Your task to perform on an android device: stop showing notifications on the lock screen Image 0: 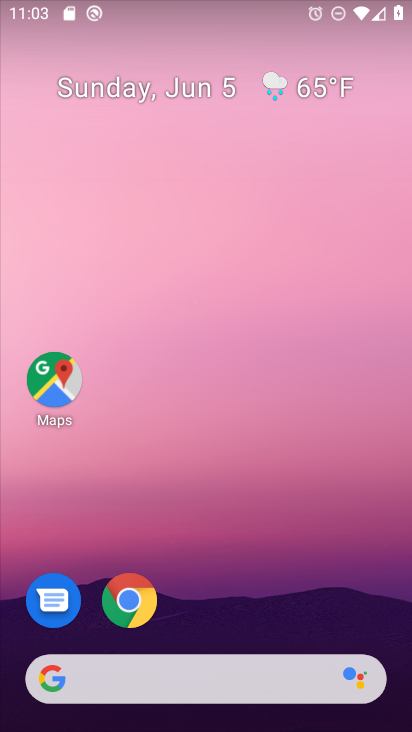
Step 0: drag from (360, 614) to (289, 115)
Your task to perform on an android device: stop showing notifications on the lock screen Image 1: 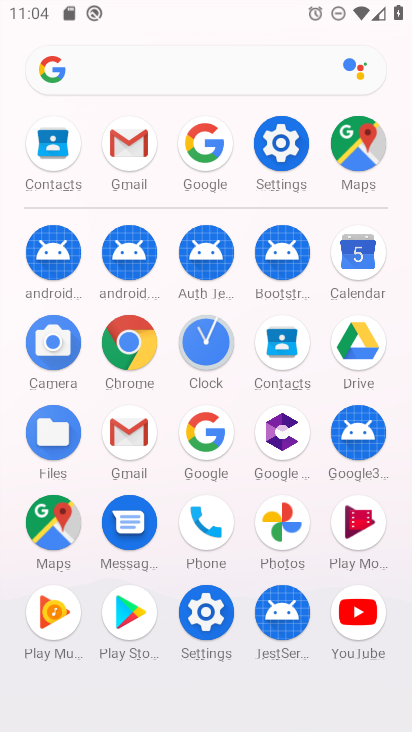
Step 1: click (213, 618)
Your task to perform on an android device: stop showing notifications on the lock screen Image 2: 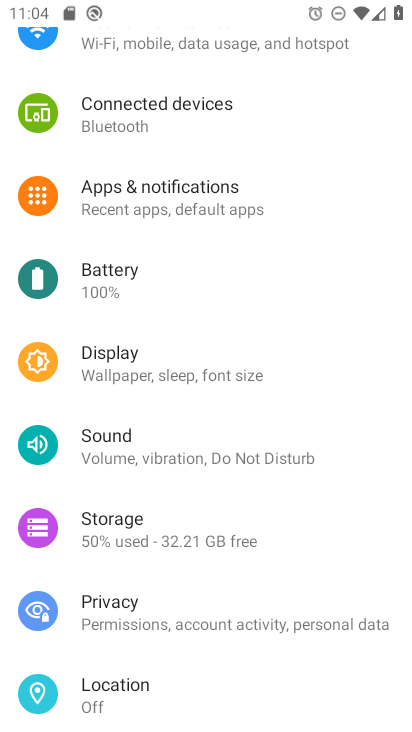
Step 2: click (221, 200)
Your task to perform on an android device: stop showing notifications on the lock screen Image 3: 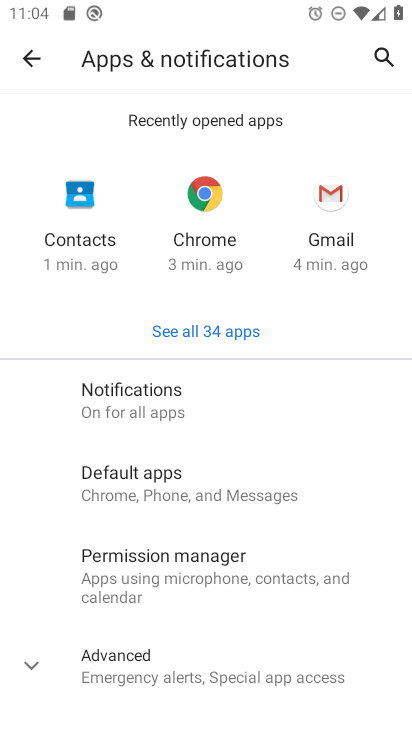
Step 3: click (175, 419)
Your task to perform on an android device: stop showing notifications on the lock screen Image 4: 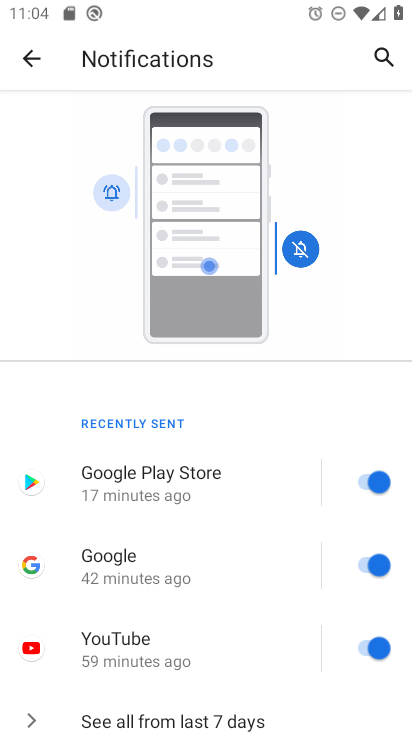
Step 4: drag from (216, 629) to (202, 53)
Your task to perform on an android device: stop showing notifications on the lock screen Image 5: 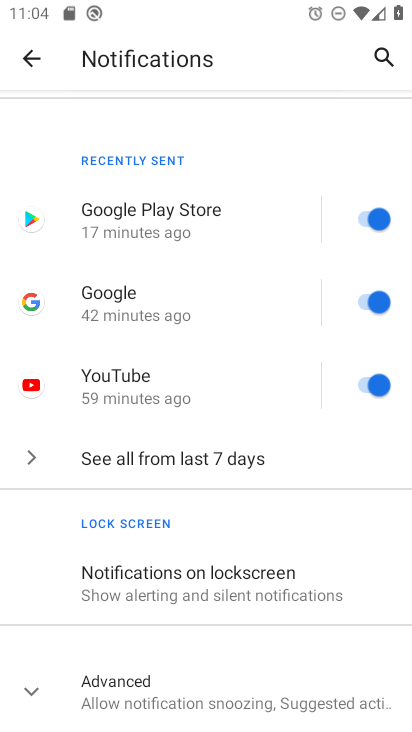
Step 5: click (228, 581)
Your task to perform on an android device: stop showing notifications on the lock screen Image 6: 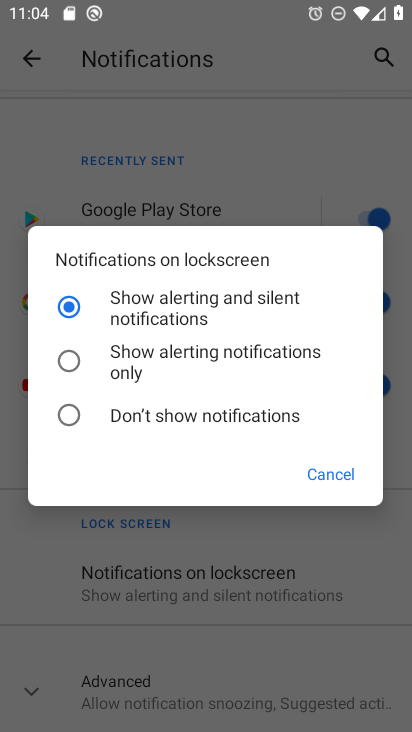
Step 6: click (71, 407)
Your task to perform on an android device: stop showing notifications on the lock screen Image 7: 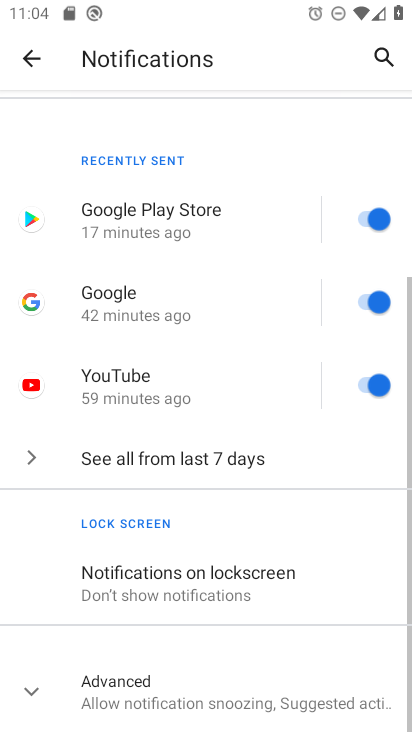
Step 7: task complete